Your task to perform on an android device: clear all cookies in the chrome app Image 0: 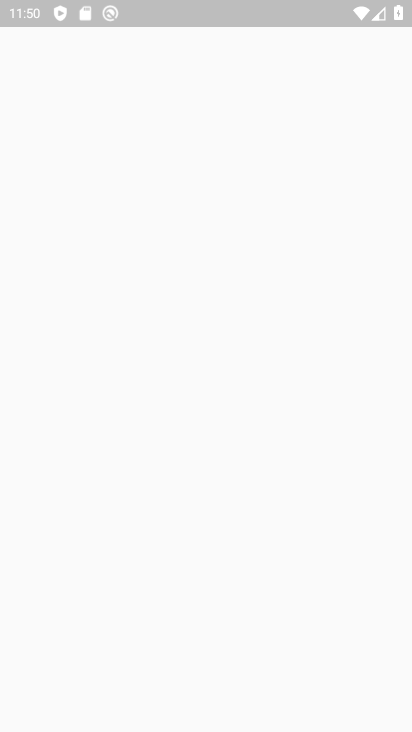
Step 0: press home button
Your task to perform on an android device: clear all cookies in the chrome app Image 1: 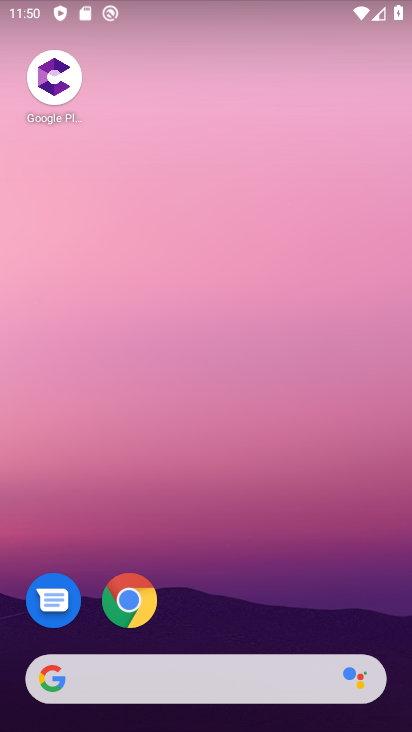
Step 1: click (125, 597)
Your task to perform on an android device: clear all cookies in the chrome app Image 2: 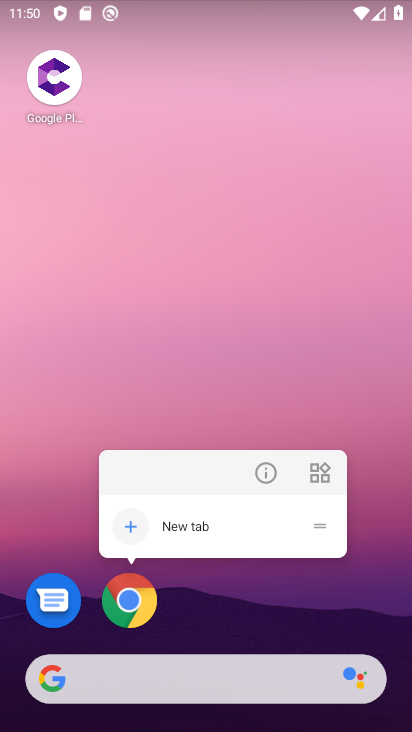
Step 2: click (129, 600)
Your task to perform on an android device: clear all cookies in the chrome app Image 3: 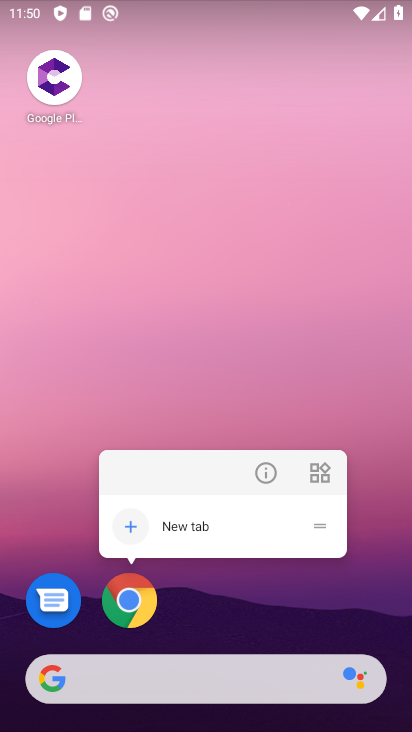
Step 3: click (277, 618)
Your task to perform on an android device: clear all cookies in the chrome app Image 4: 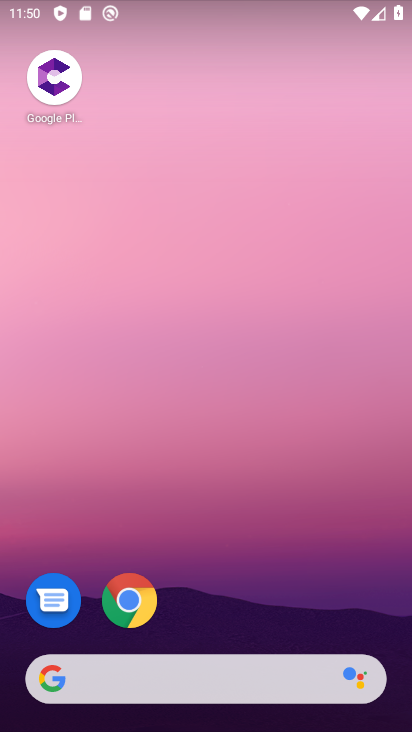
Step 4: drag from (276, 616) to (317, 107)
Your task to perform on an android device: clear all cookies in the chrome app Image 5: 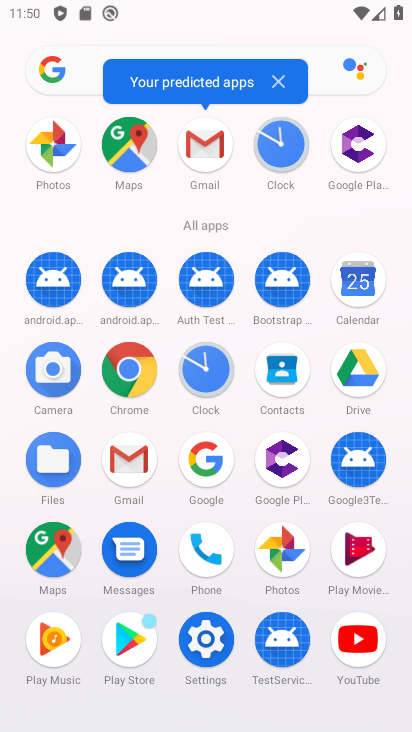
Step 5: click (128, 363)
Your task to perform on an android device: clear all cookies in the chrome app Image 6: 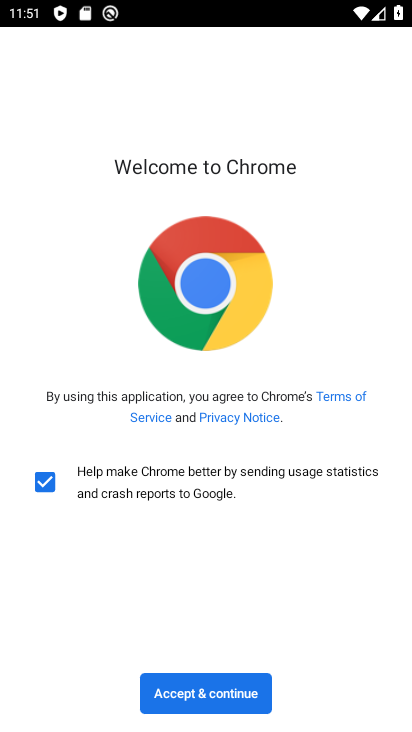
Step 6: click (193, 683)
Your task to perform on an android device: clear all cookies in the chrome app Image 7: 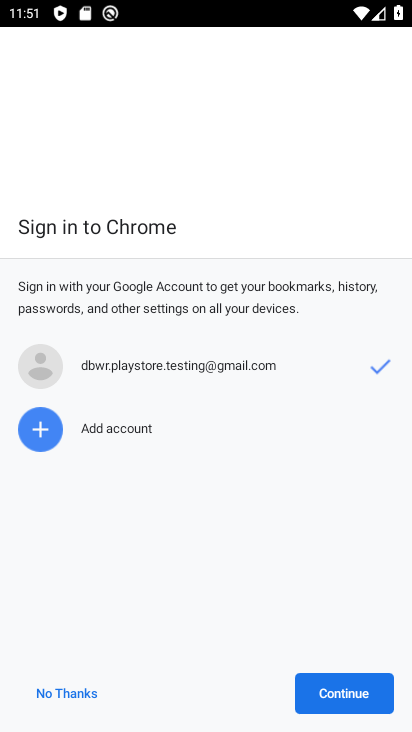
Step 7: click (316, 676)
Your task to perform on an android device: clear all cookies in the chrome app Image 8: 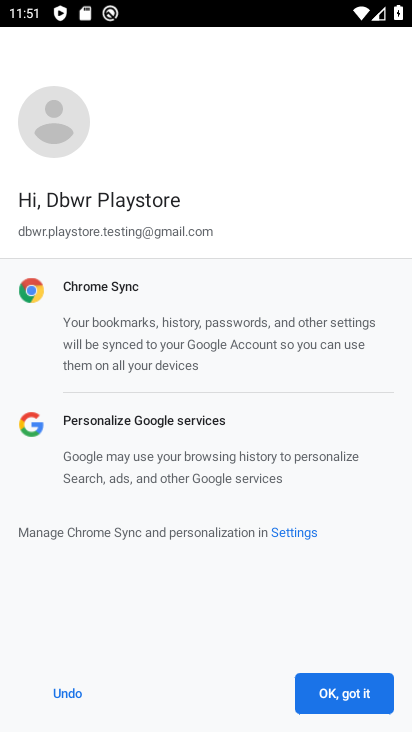
Step 8: click (335, 680)
Your task to perform on an android device: clear all cookies in the chrome app Image 9: 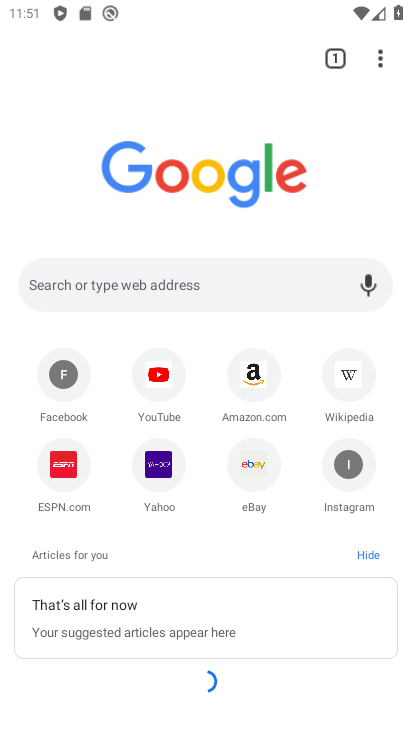
Step 9: click (378, 52)
Your task to perform on an android device: clear all cookies in the chrome app Image 10: 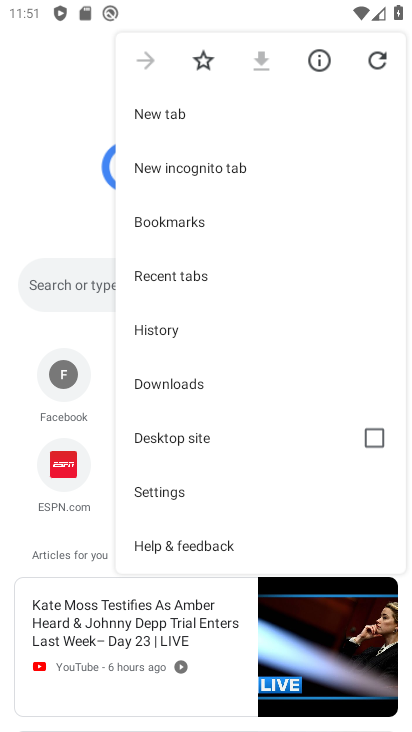
Step 10: click (171, 327)
Your task to perform on an android device: clear all cookies in the chrome app Image 11: 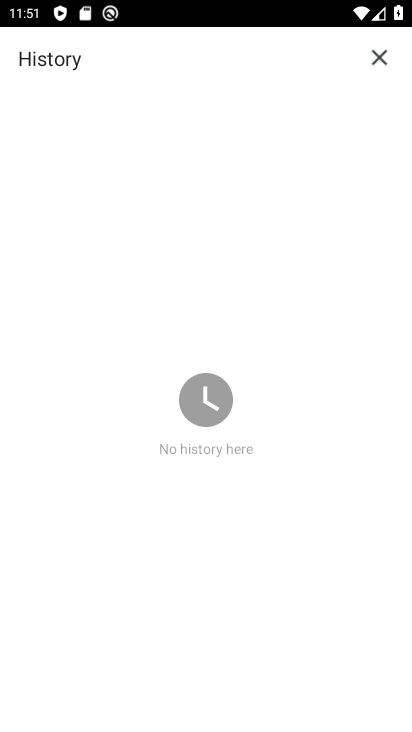
Step 11: task complete